Your task to perform on an android device: toggle translation in the chrome app Image 0: 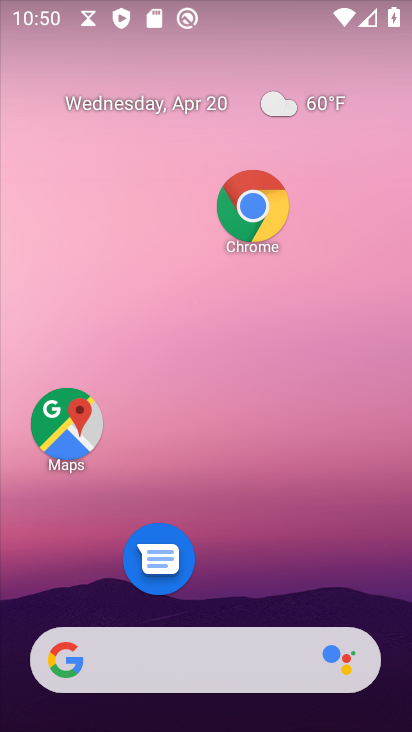
Step 0: drag from (270, 637) to (280, 138)
Your task to perform on an android device: toggle translation in the chrome app Image 1: 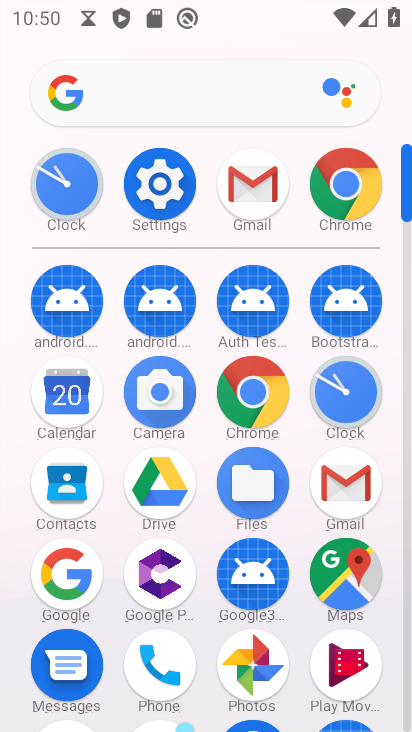
Step 1: drag from (295, 634) to (288, 87)
Your task to perform on an android device: toggle translation in the chrome app Image 2: 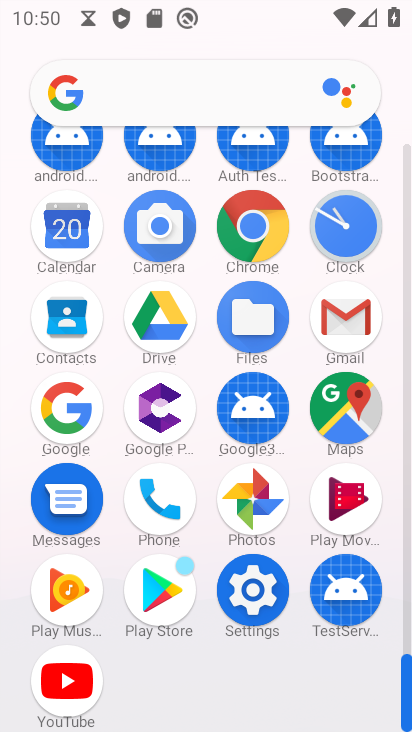
Step 2: click (255, 240)
Your task to perform on an android device: toggle translation in the chrome app Image 3: 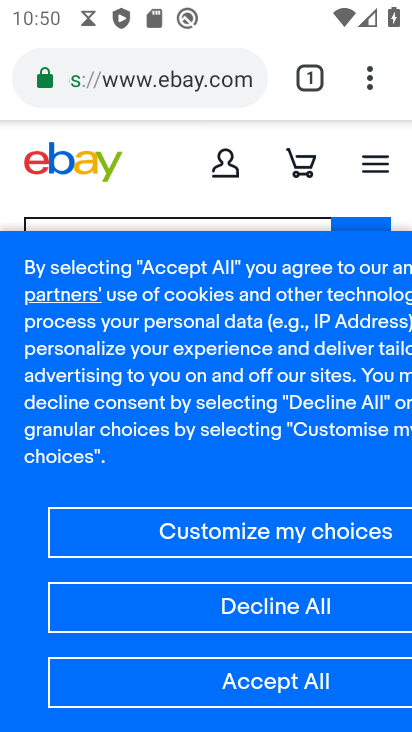
Step 3: drag from (366, 86) to (82, 619)
Your task to perform on an android device: toggle translation in the chrome app Image 4: 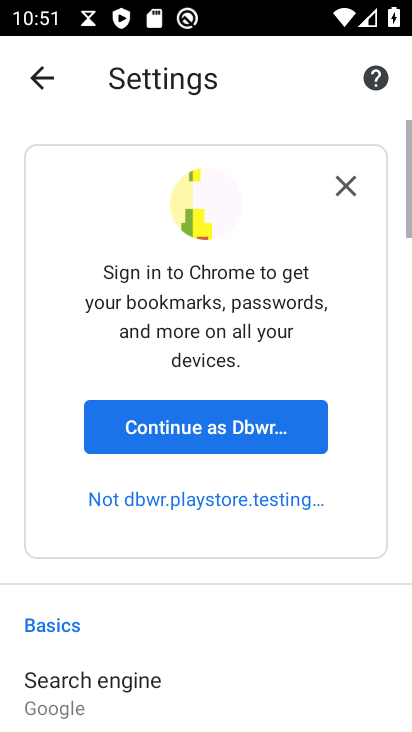
Step 4: drag from (231, 399) to (248, 18)
Your task to perform on an android device: toggle translation in the chrome app Image 5: 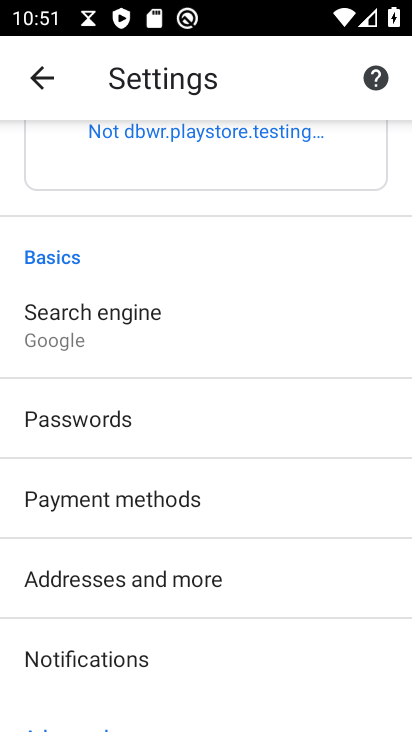
Step 5: drag from (84, 713) to (182, 228)
Your task to perform on an android device: toggle translation in the chrome app Image 6: 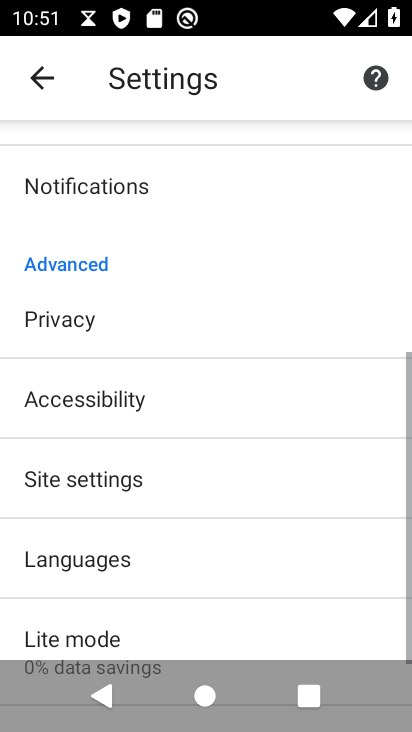
Step 6: drag from (205, 600) to (254, 189)
Your task to perform on an android device: toggle translation in the chrome app Image 7: 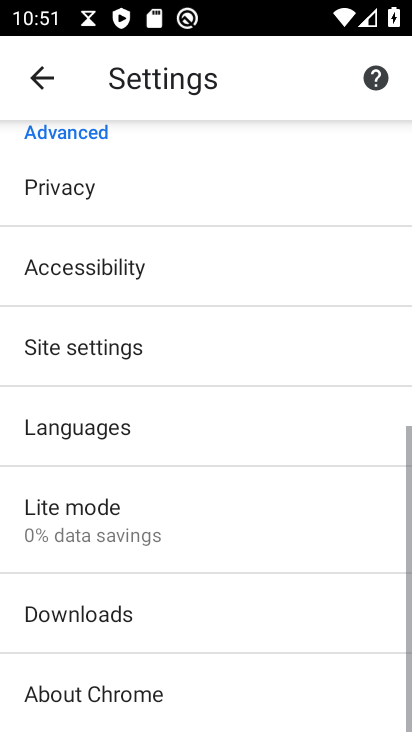
Step 7: click (142, 415)
Your task to perform on an android device: toggle translation in the chrome app Image 8: 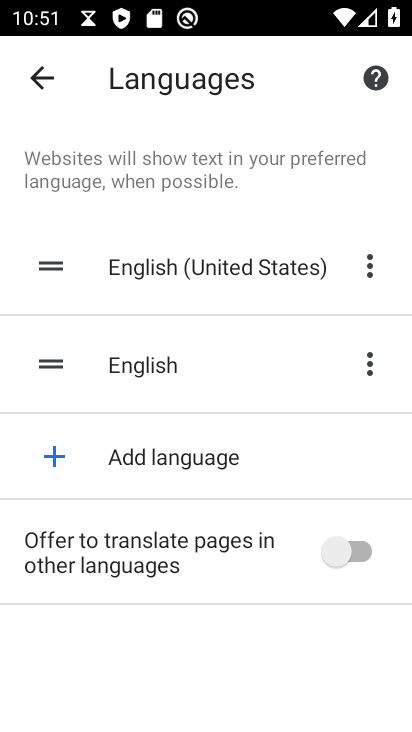
Step 8: click (353, 548)
Your task to perform on an android device: toggle translation in the chrome app Image 9: 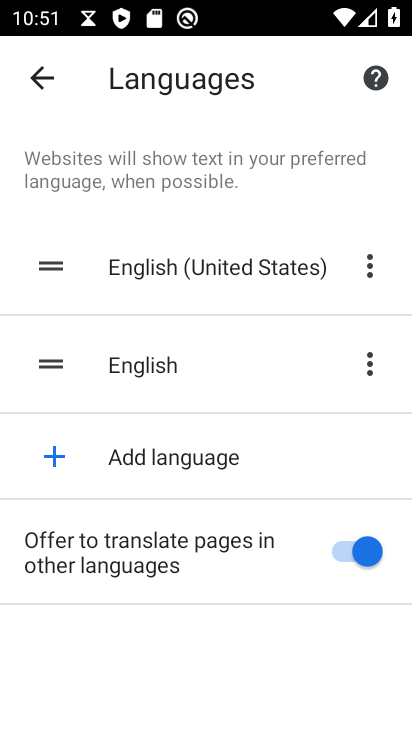
Step 9: task complete